Your task to perform on an android device: turn off location history Image 0: 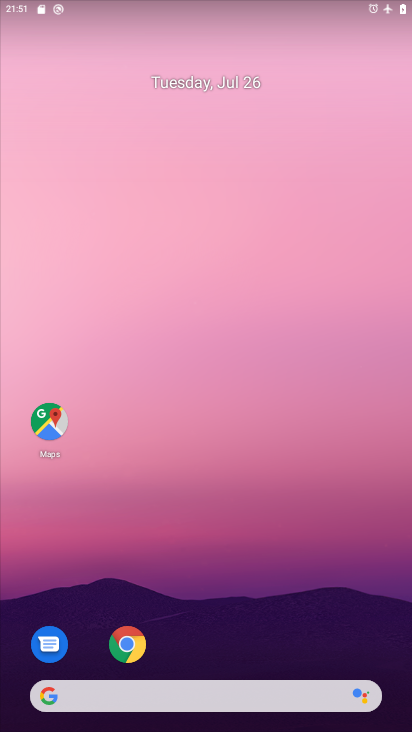
Step 0: drag from (277, 597) to (306, 29)
Your task to perform on an android device: turn off location history Image 1: 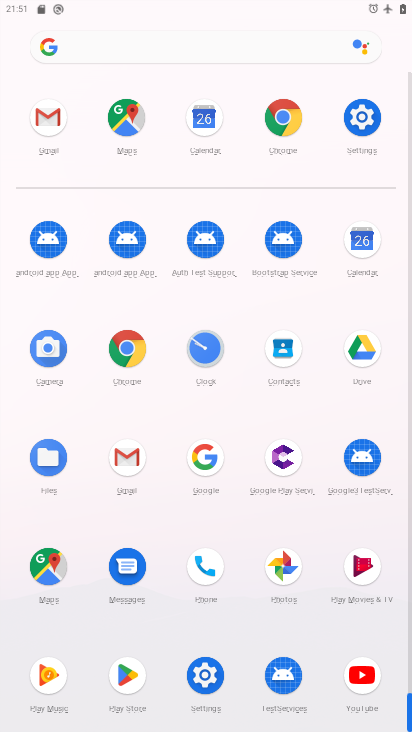
Step 1: click (356, 111)
Your task to perform on an android device: turn off location history Image 2: 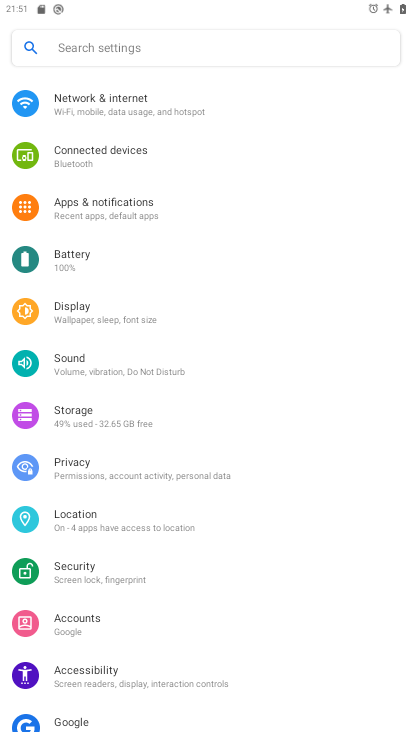
Step 2: click (97, 500)
Your task to perform on an android device: turn off location history Image 3: 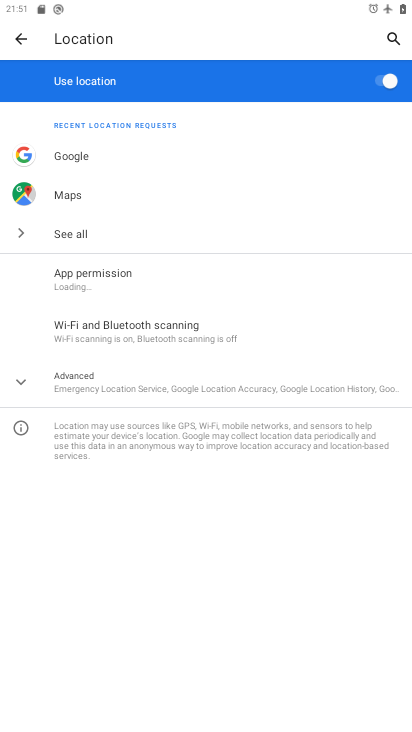
Step 3: click (202, 386)
Your task to perform on an android device: turn off location history Image 4: 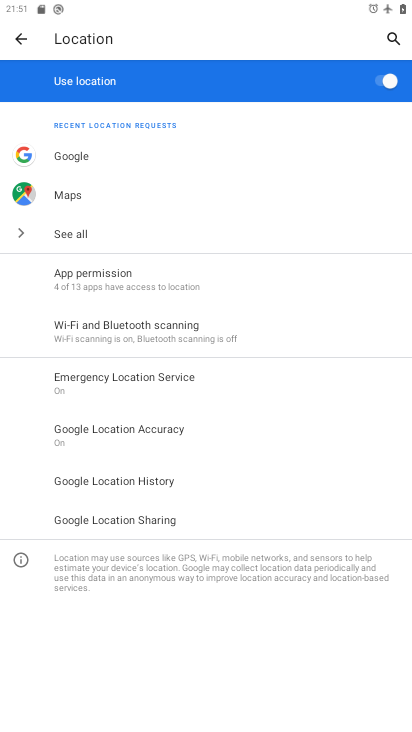
Step 4: click (170, 486)
Your task to perform on an android device: turn off location history Image 5: 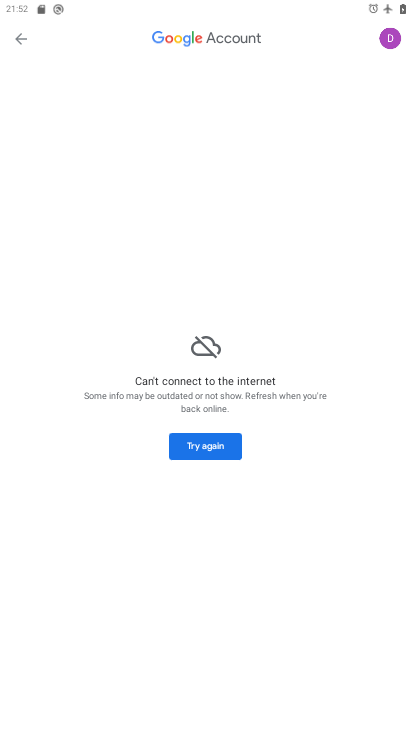
Step 5: task complete